Your task to perform on an android device: check storage Image 0: 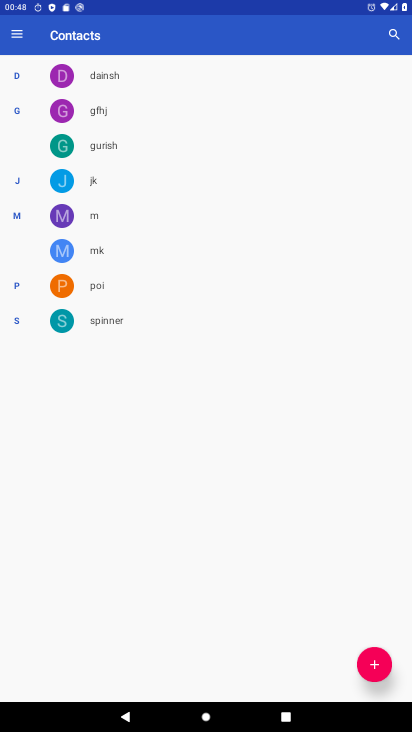
Step 0: press home button
Your task to perform on an android device: check storage Image 1: 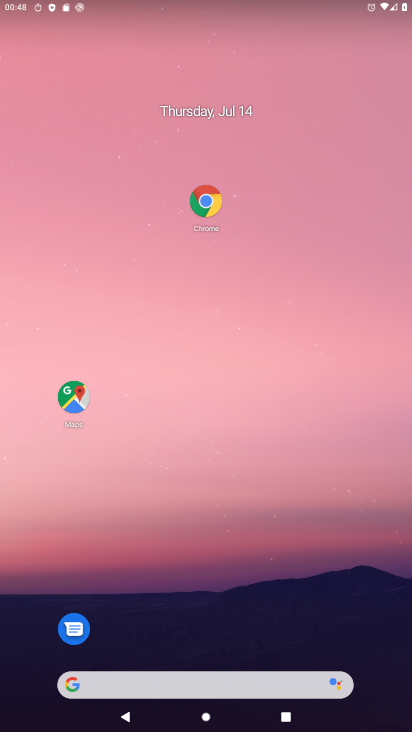
Step 1: drag from (217, 639) to (229, 0)
Your task to perform on an android device: check storage Image 2: 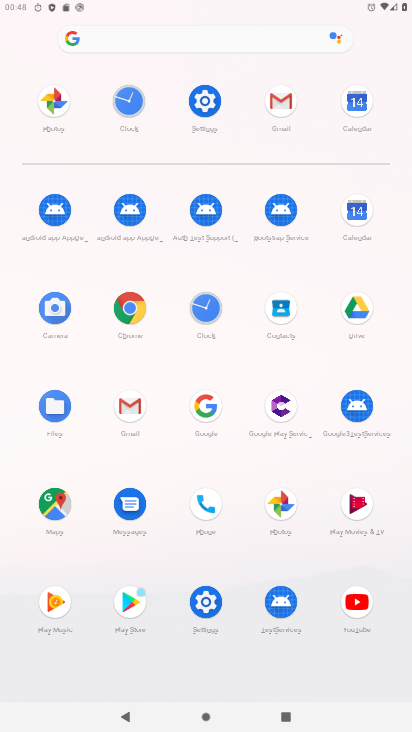
Step 2: click (204, 117)
Your task to perform on an android device: check storage Image 3: 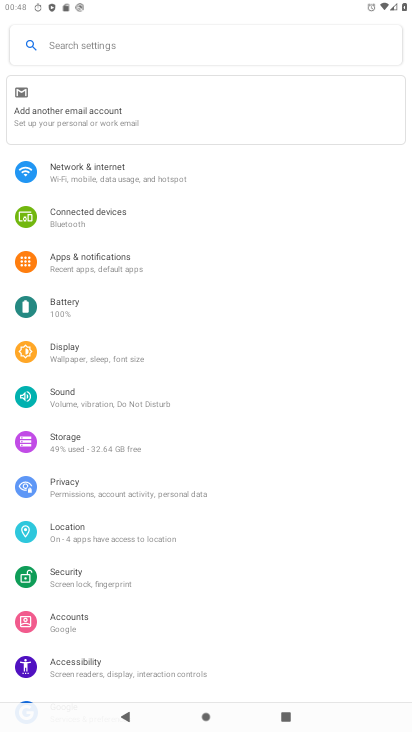
Step 3: click (61, 438)
Your task to perform on an android device: check storage Image 4: 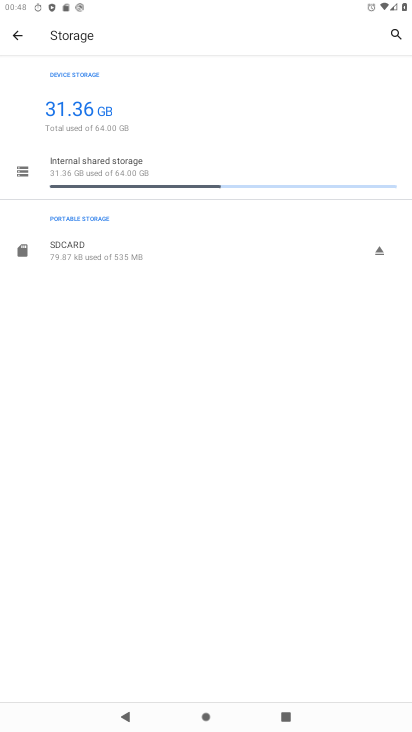
Step 4: task complete